Your task to perform on an android device: Open accessibility settings Image 0: 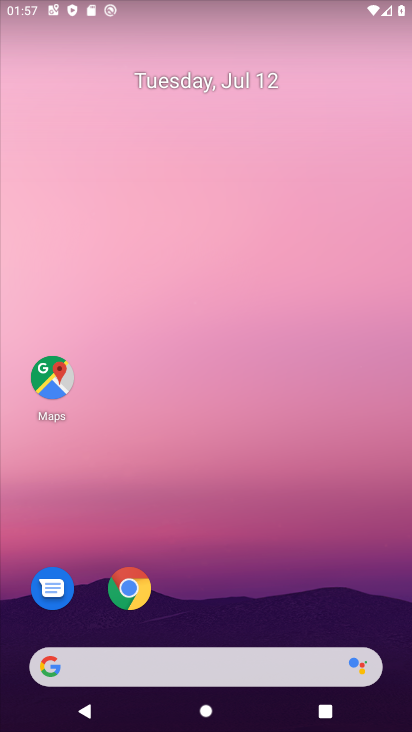
Step 0: drag from (199, 9) to (260, 585)
Your task to perform on an android device: Open accessibility settings Image 1: 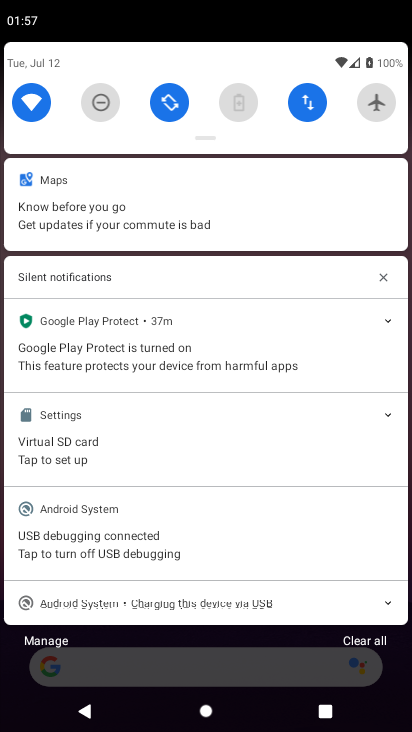
Step 1: drag from (202, 70) to (227, 633)
Your task to perform on an android device: Open accessibility settings Image 2: 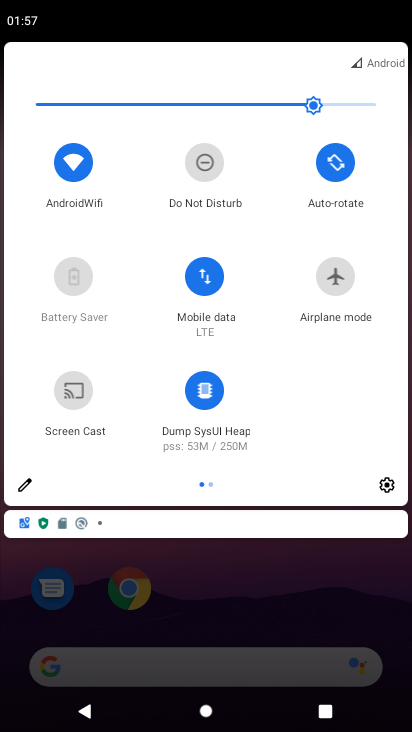
Step 2: click (392, 492)
Your task to perform on an android device: Open accessibility settings Image 3: 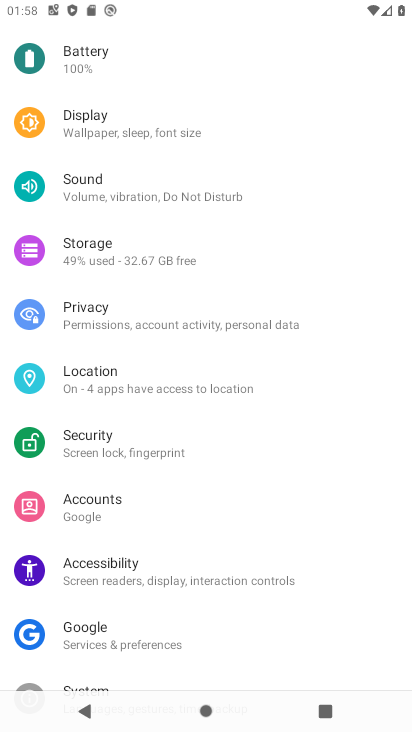
Step 3: click (113, 566)
Your task to perform on an android device: Open accessibility settings Image 4: 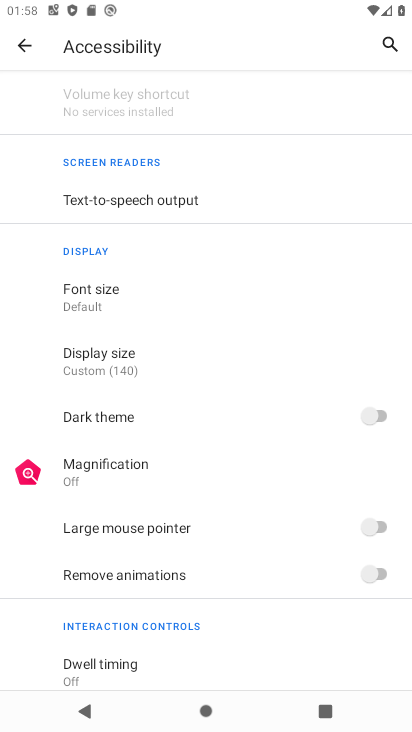
Step 4: task complete